Your task to perform on an android device: turn off location history Image 0: 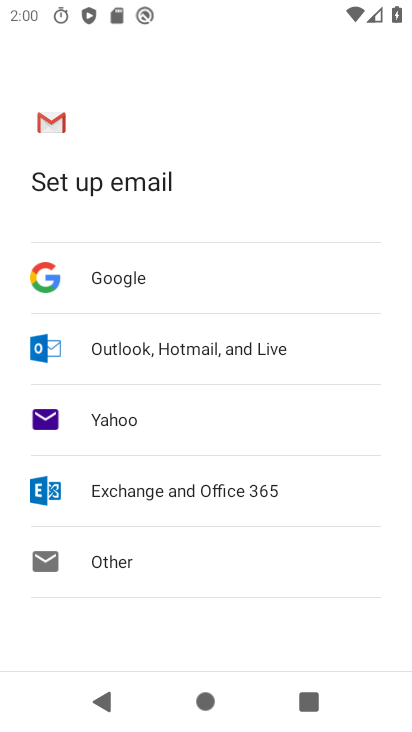
Step 0: press home button
Your task to perform on an android device: turn off location history Image 1: 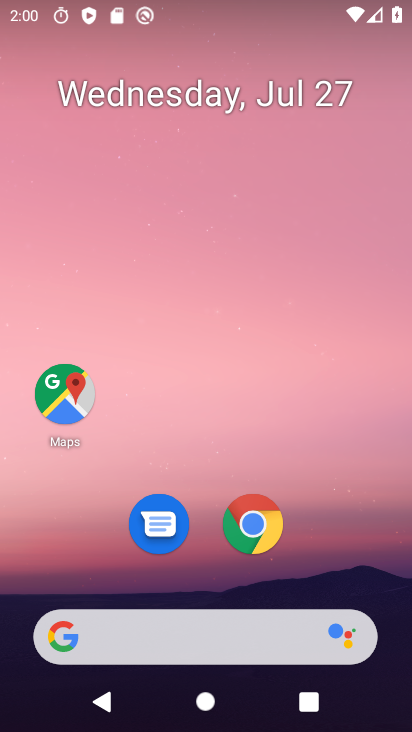
Step 1: drag from (343, 529) to (378, 65)
Your task to perform on an android device: turn off location history Image 2: 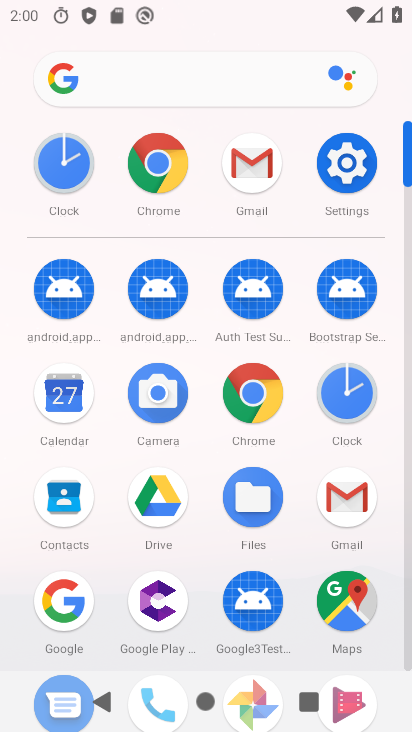
Step 2: click (356, 172)
Your task to perform on an android device: turn off location history Image 3: 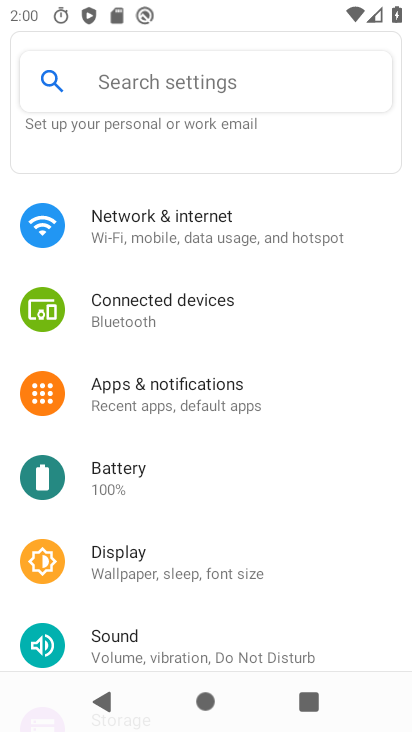
Step 3: drag from (180, 609) to (246, 181)
Your task to perform on an android device: turn off location history Image 4: 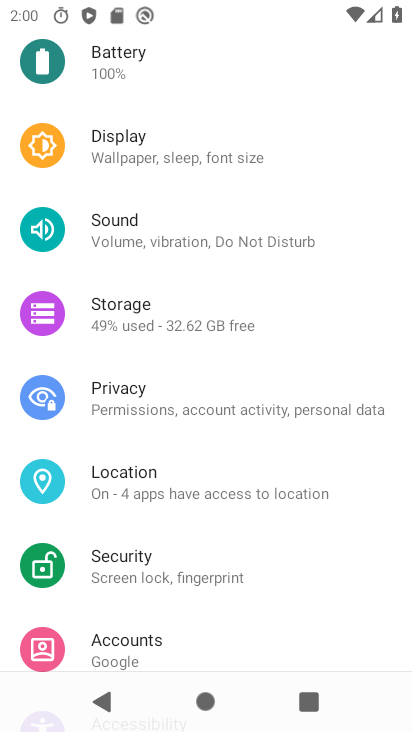
Step 4: click (169, 475)
Your task to perform on an android device: turn off location history Image 5: 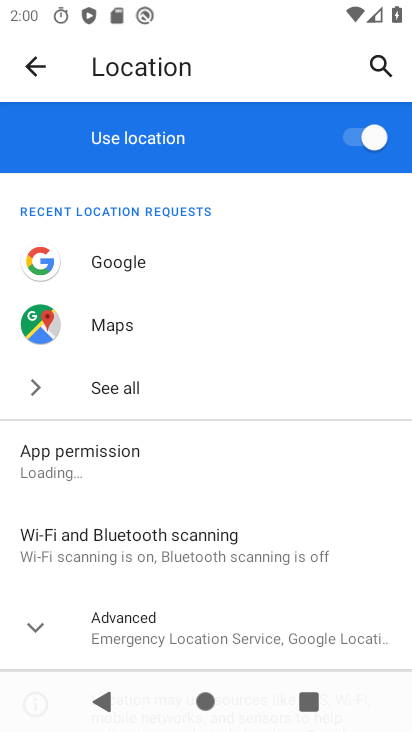
Step 5: drag from (199, 471) to (239, 187)
Your task to perform on an android device: turn off location history Image 6: 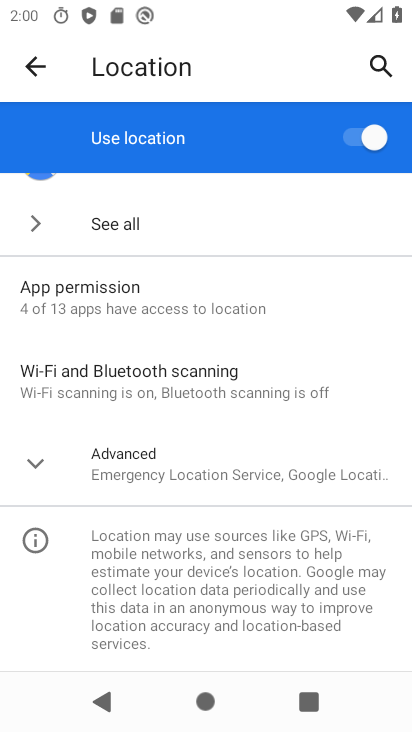
Step 6: click (31, 458)
Your task to perform on an android device: turn off location history Image 7: 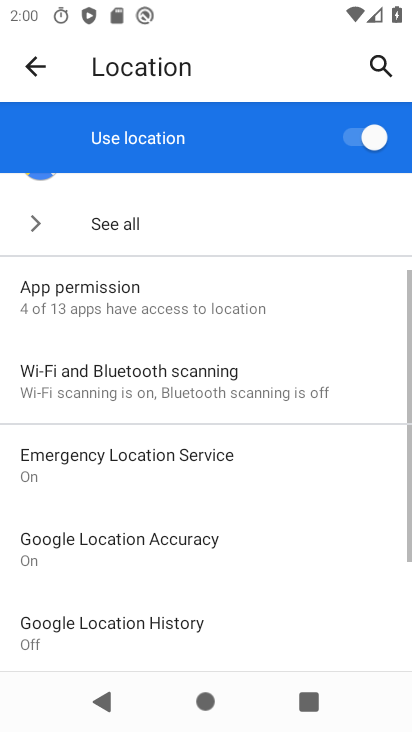
Step 7: drag from (204, 550) to (273, 283)
Your task to perform on an android device: turn off location history Image 8: 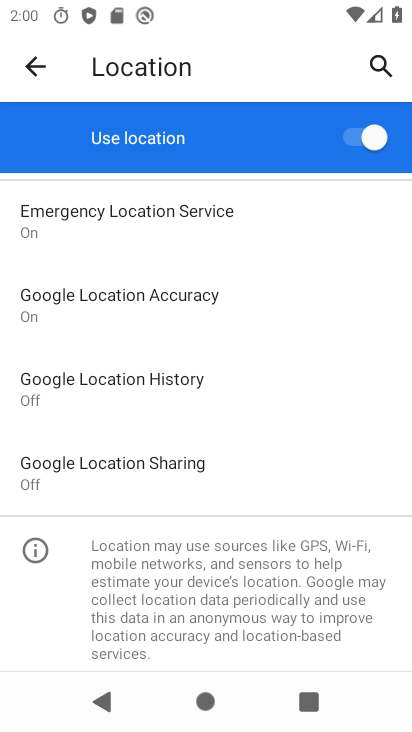
Step 8: click (182, 382)
Your task to perform on an android device: turn off location history Image 9: 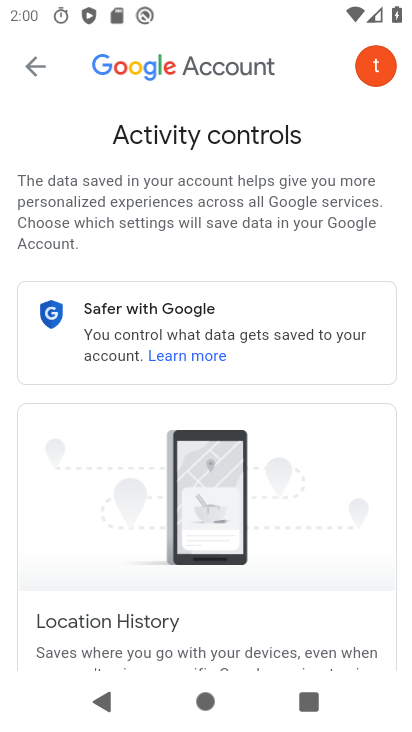
Step 9: task complete